Your task to perform on an android device: allow cookies in the chrome app Image 0: 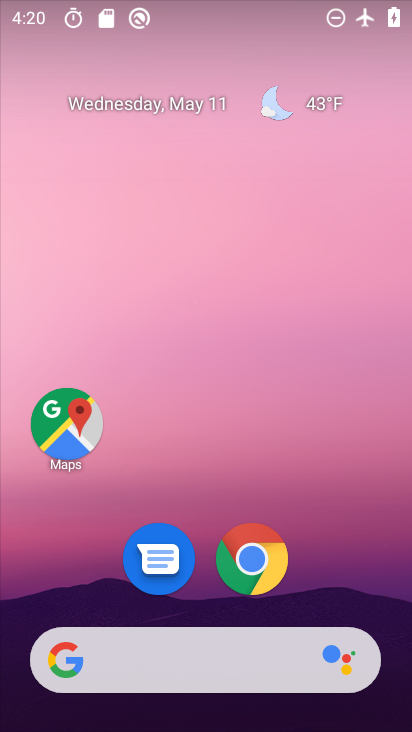
Step 0: click (255, 548)
Your task to perform on an android device: allow cookies in the chrome app Image 1: 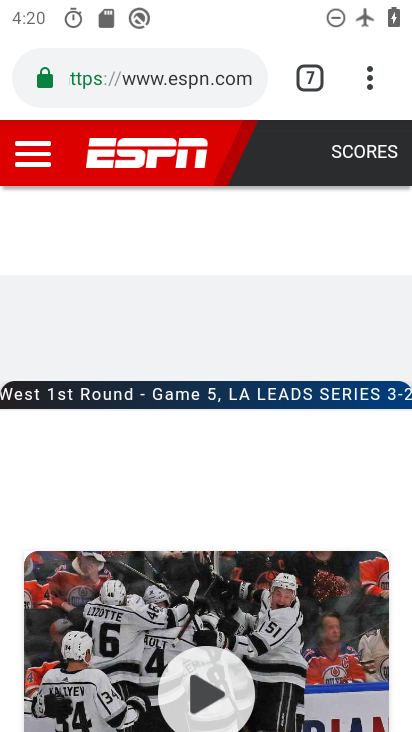
Step 1: click (372, 70)
Your task to perform on an android device: allow cookies in the chrome app Image 2: 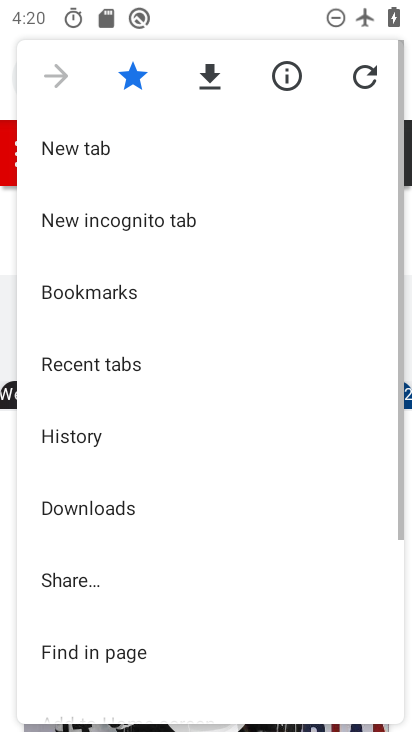
Step 2: drag from (210, 635) to (182, 194)
Your task to perform on an android device: allow cookies in the chrome app Image 3: 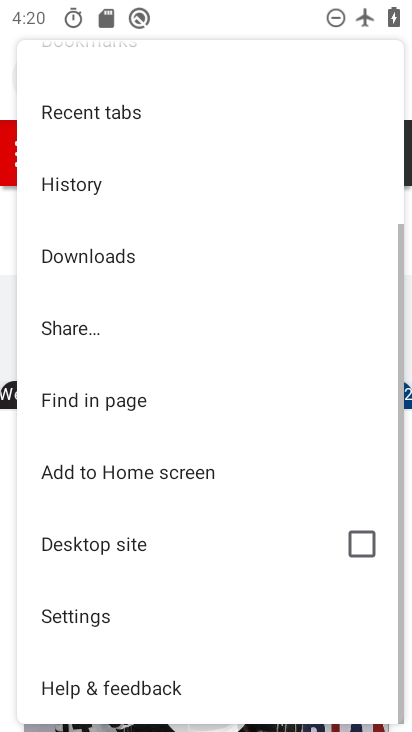
Step 3: click (125, 623)
Your task to perform on an android device: allow cookies in the chrome app Image 4: 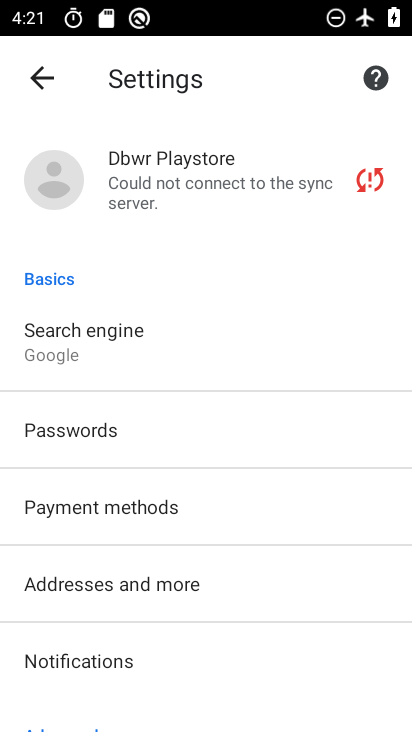
Step 4: drag from (194, 619) to (197, 206)
Your task to perform on an android device: allow cookies in the chrome app Image 5: 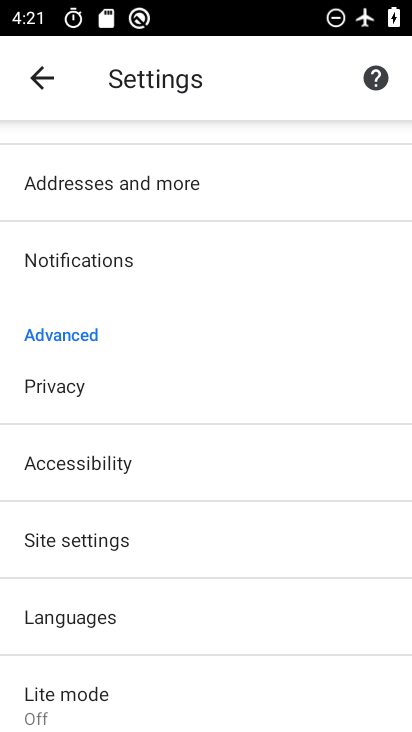
Step 5: click (123, 543)
Your task to perform on an android device: allow cookies in the chrome app Image 6: 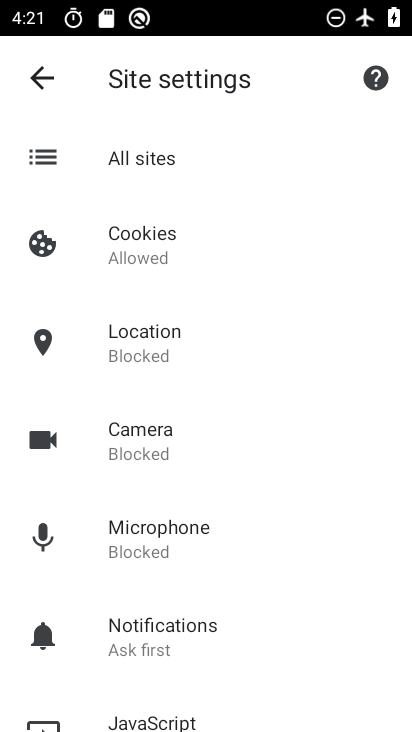
Step 6: click (217, 235)
Your task to perform on an android device: allow cookies in the chrome app Image 7: 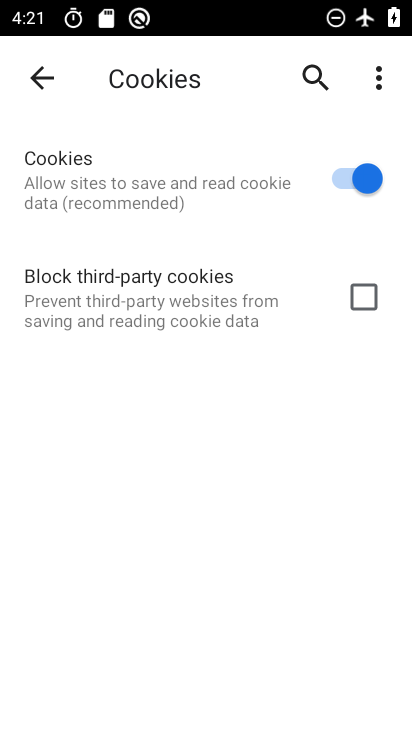
Step 7: task complete